Your task to perform on an android device: toggle show notifications on the lock screen Image 0: 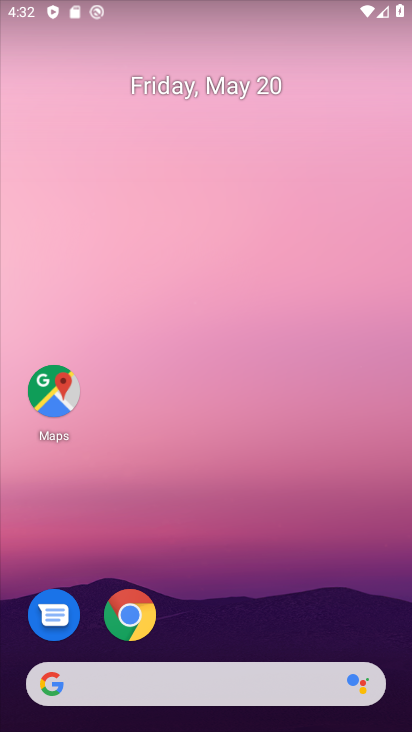
Step 0: drag from (331, 633) to (345, 41)
Your task to perform on an android device: toggle show notifications on the lock screen Image 1: 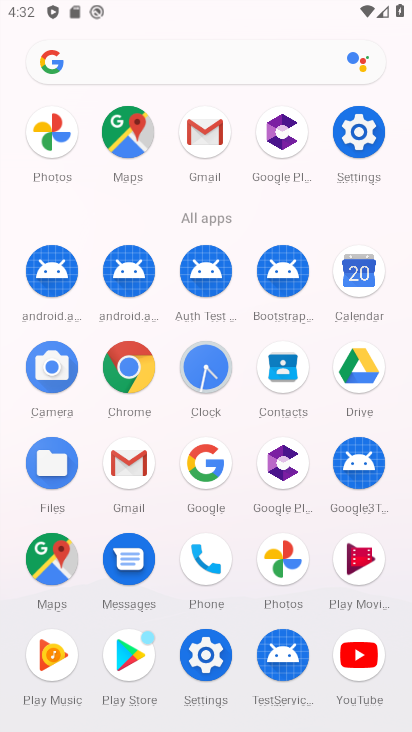
Step 1: click (357, 134)
Your task to perform on an android device: toggle show notifications on the lock screen Image 2: 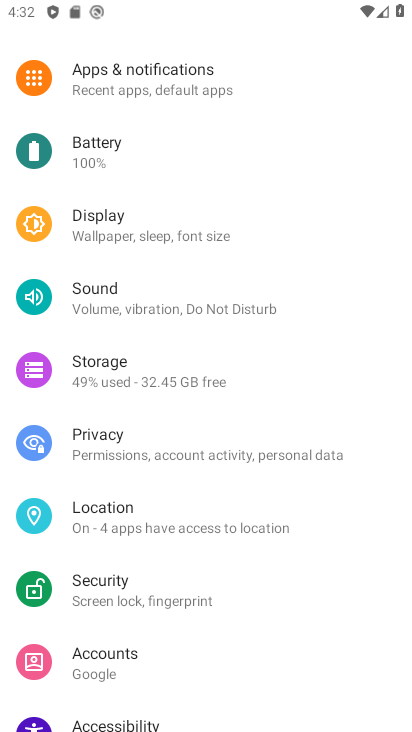
Step 2: click (237, 82)
Your task to perform on an android device: toggle show notifications on the lock screen Image 3: 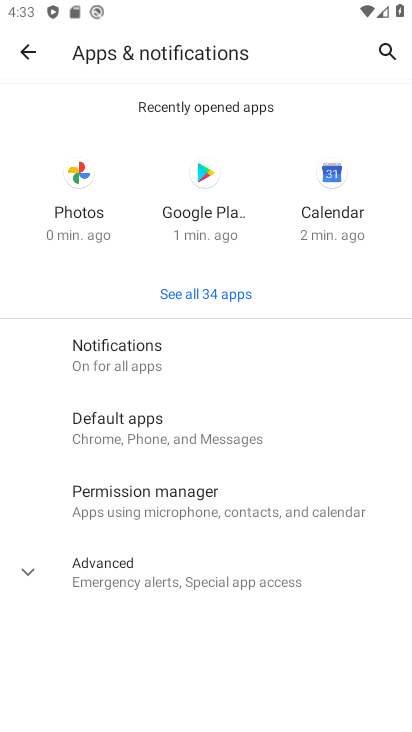
Step 3: click (170, 359)
Your task to perform on an android device: toggle show notifications on the lock screen Image 4: 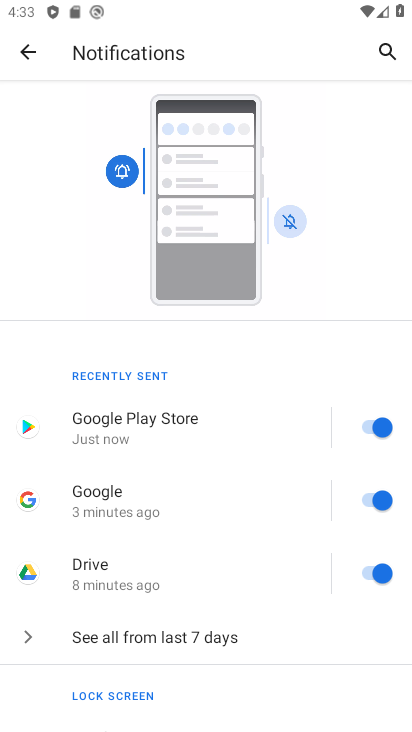
Step 4: drag from (187, 659) to (249, 68)
Your task to perform on an android device: toggle show notifications on the lock screen Image 5: 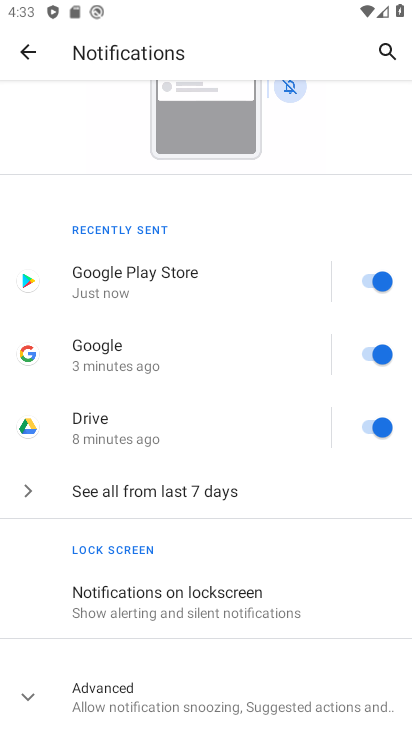
Step 5: click (240, 594)
Your task to perform on an android device: toggle show notifications on the lock screen Image 6: 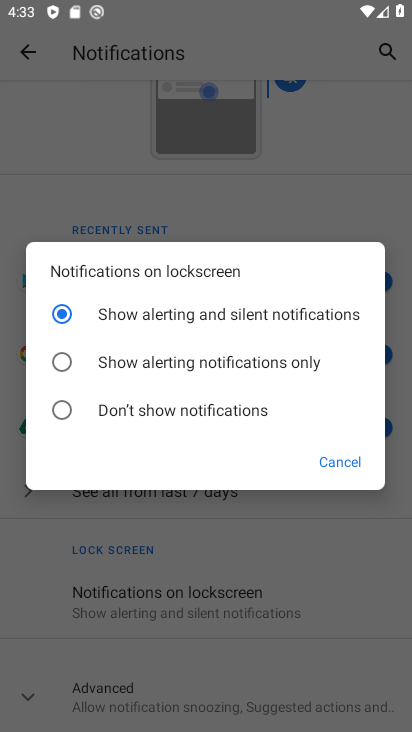
Step 6: click (62, 408)
Your task to perform on an android device: toggle show notifications on the lock screen Image 7: 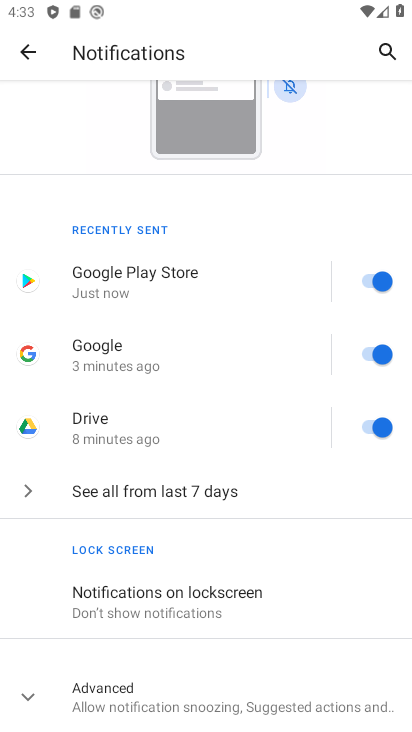
Step 7: task complete